Your task to perform on an android device: turn off picture-in-picture Image 0: 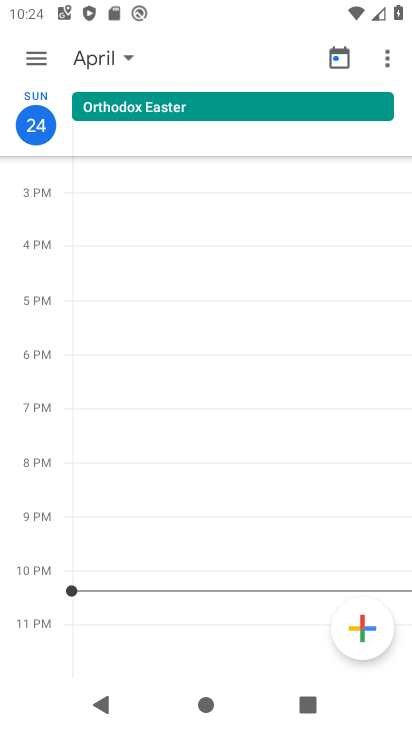
Step 0: press home button
Your task to perform on an android device: turn off picture-in-picture Image 1: 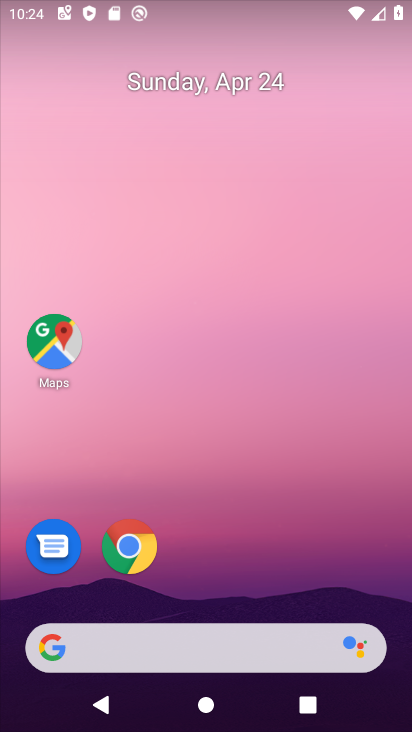
Step 1: click (132, 552)
Your task to perform on an android device: turn off picture-in-picture Image 2: 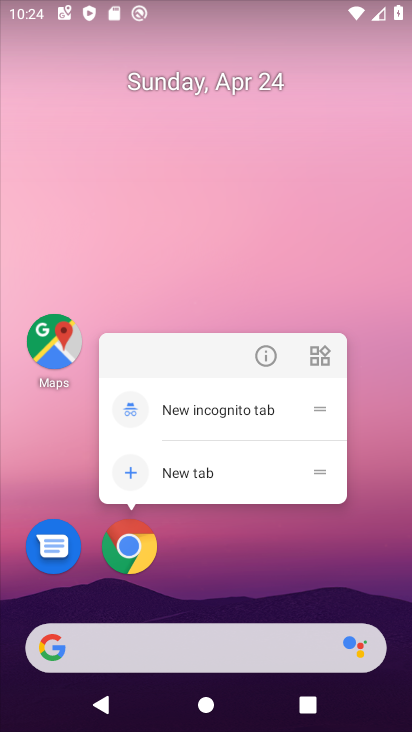
Step 2: click (264, 359)
Your task to perform on an android device: turn off picture-in-picture Image 3: 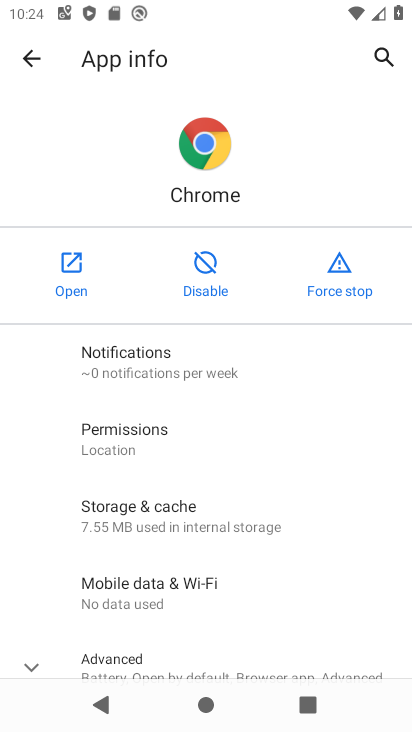
Step 3: drag from (217, 444) to (212, 126)
Your task to perform on an android device: turn off picture-in-picture Image 4: 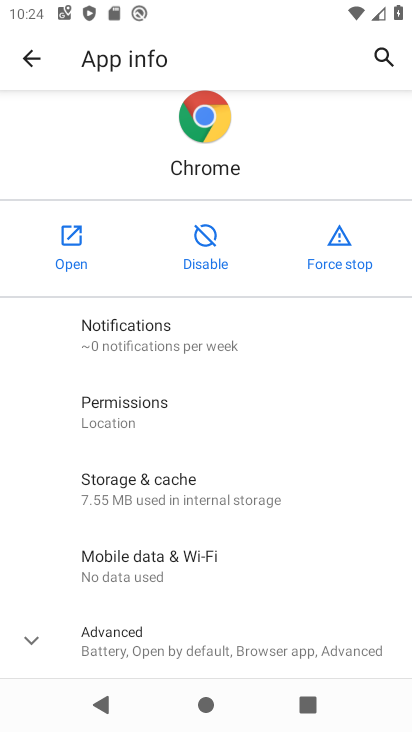
Step 4: click (30, 651)
Your task to perform on an android device: turn off picture-in-picture Image 5: 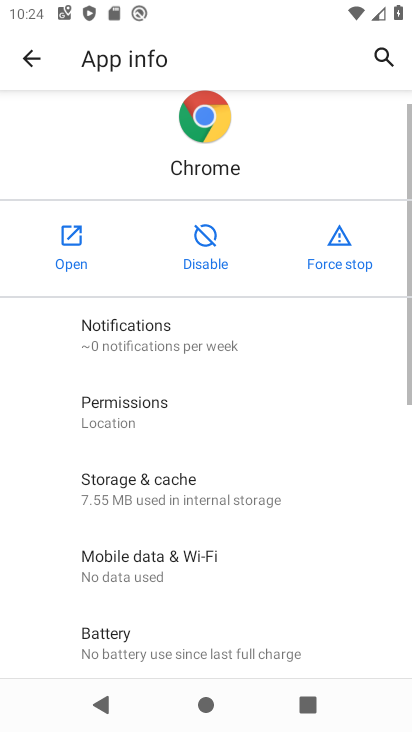
Step 5: drag from (220, 556) to (220, 85)
Your task to perform on an android device: turn off picture-in-picture Image 6: 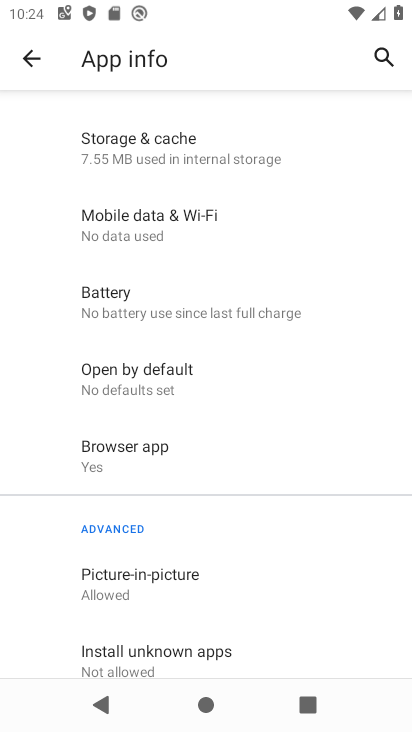
Step 6: click (109, 584)
Your task to perform on an android device: turn off picture-in-picture Image 7: 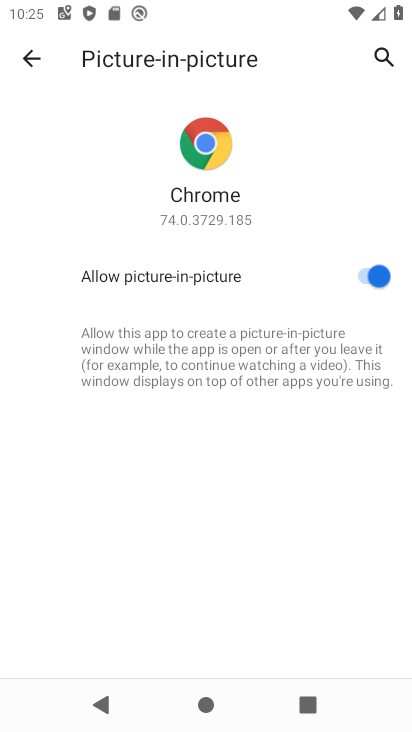
Step 7: click (381, 272)
Your task to perform on an android device: turn off picture-in-picture Image 8: 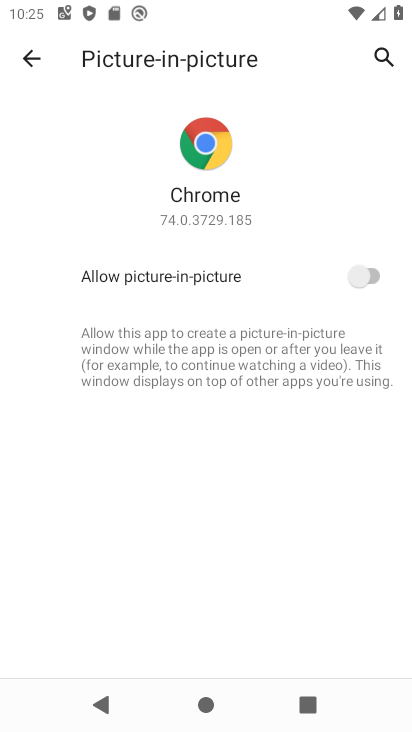
Step 8: task complete